Your task to perform on an android device: Open the phone app and click the voicemail tab. Image 0: 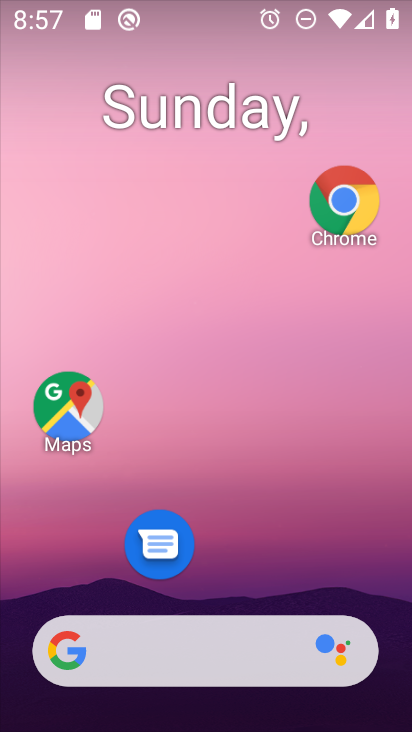
Step 0: drag from (232, 509) to (251, 47)
Your task to perform on an android device: Open the phone app and click the voicemail tab. Image 1: 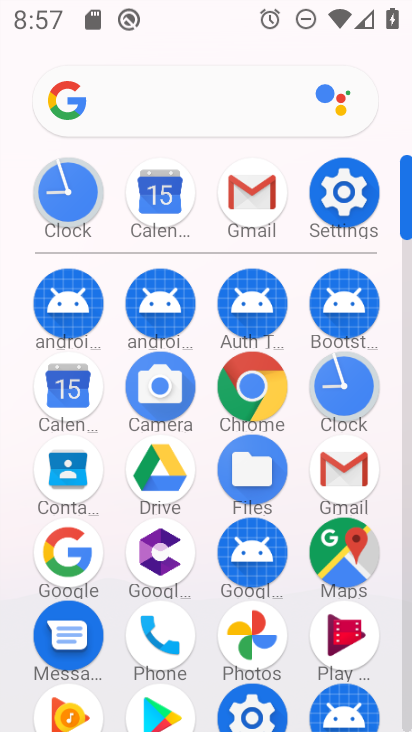
Step 1: click (146, 631)
Your task to perform on an android device: Open the phone app and click the voicemail tab. Image 2: 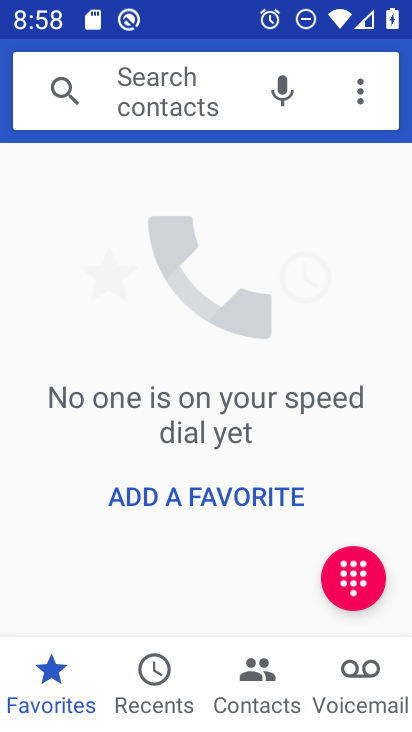
Step 2: click (358, 687)
Your task to perform on an android device: Open the phone app and click the voicemail tab. Image 3: 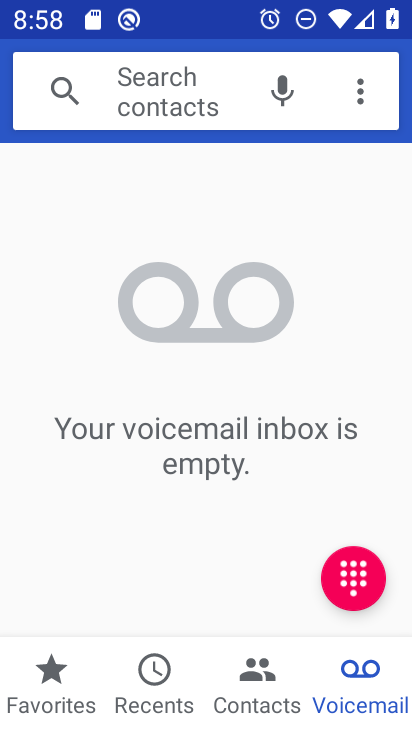
Step 3: task complete